Your task to perform on an android device: Set the phone to "Do not disturb". Image 0: 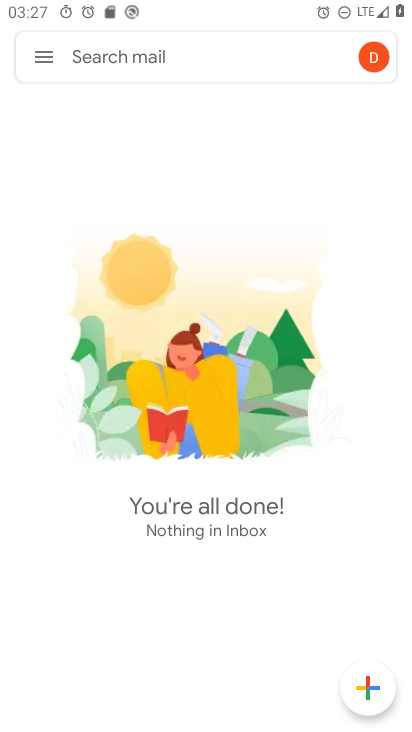
Step 0: press home button
Your task to perform on an android device: Set the phone to "Do not disturb". Image 1: 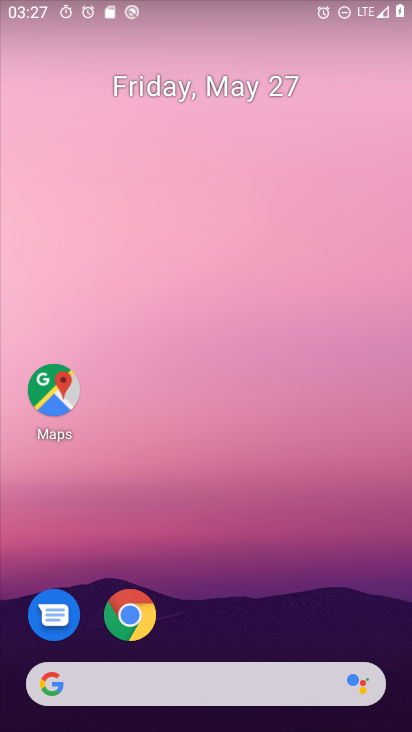
Step 1: drag from (348, 634) to (361, 248)
Your task to perform on an android device: Set the phone to "Do not disturb". Image 2: 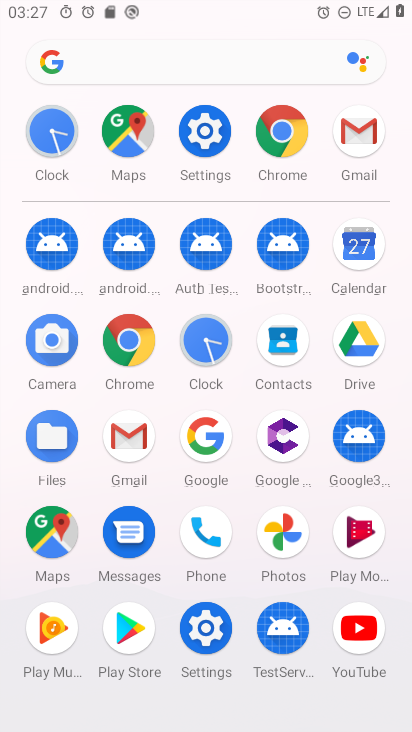
Step 2: click (201, 630)
Your task to perform on an android device: Set the phone to "Do not disturb". Image 3: 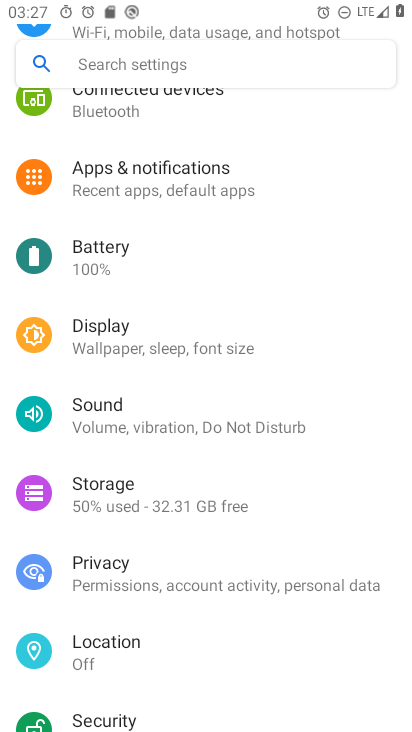
Step 3: drag from (325, 329) to (327, 418)
Your task to perform on an android device: Set the phone to "Do not disturb". Image 4: 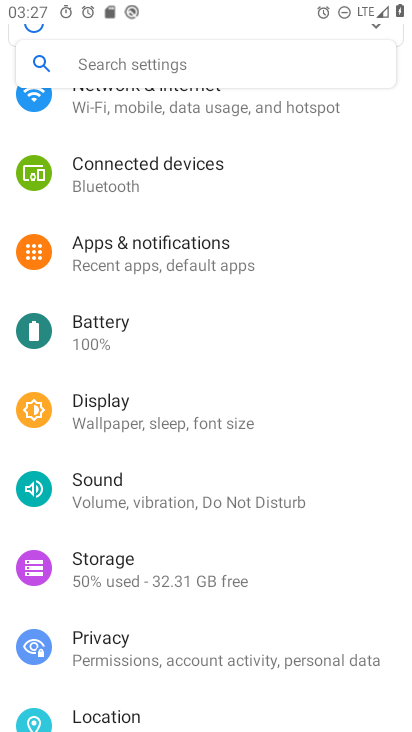
Step 4: drag from (359, 228) to (363, 329)
Your task to perform on an android device: Set the phone to "Do not disturb". Image 5: 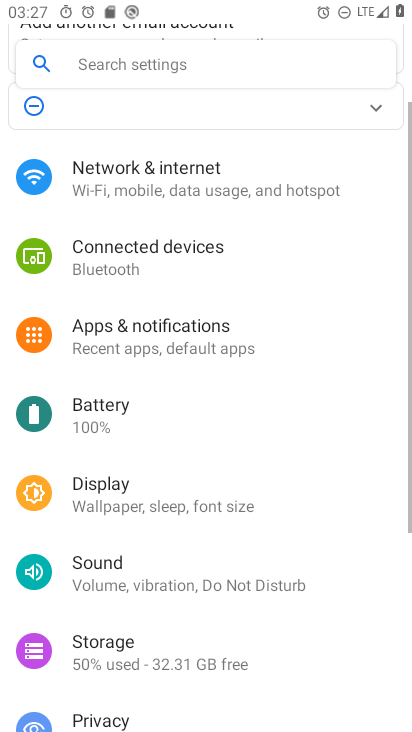
Step 5: drag from (363, 245) to (361, 365)
Your task to perform on an android device: Set the phone to "Do not disturb". Image 6: 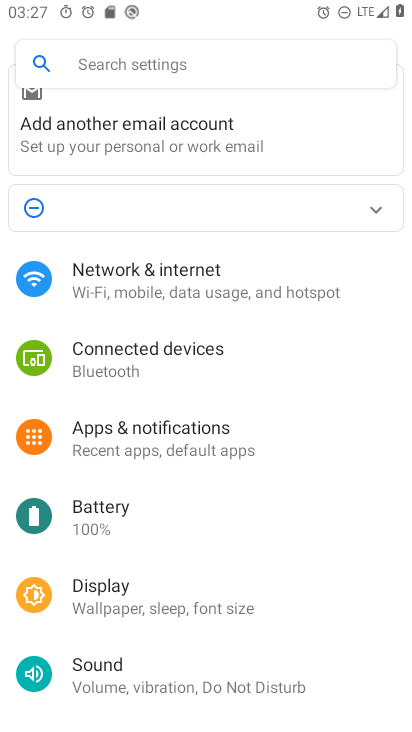
Step 6: drag from (369, 281) to (361, 537)
Your task to perform on an android device: Set the phone to "Do not disturb". Image 7: 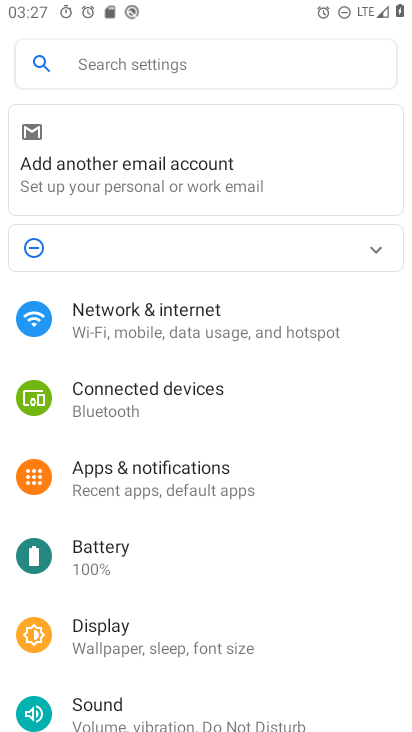
Step 7: drag from (340, 590) to (337, 423)
Your task to perform on an android device: Set the phone to "Do not disturb". Image 8: 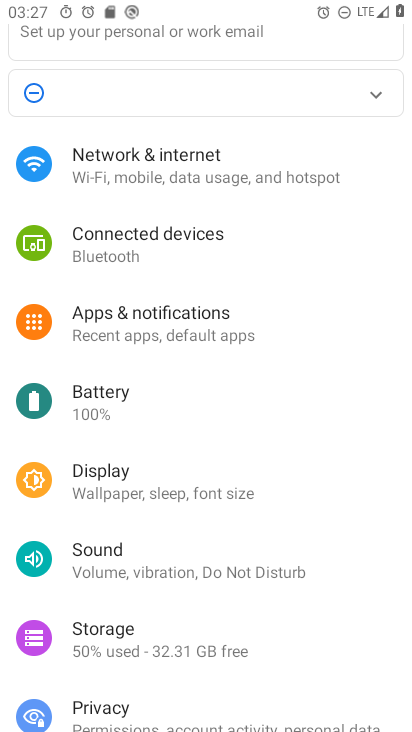
Step 8: drag from (340, 585) to (339, 469)
Your task to perform on an android device: Set the phone to "Do not disturb". Image 9: 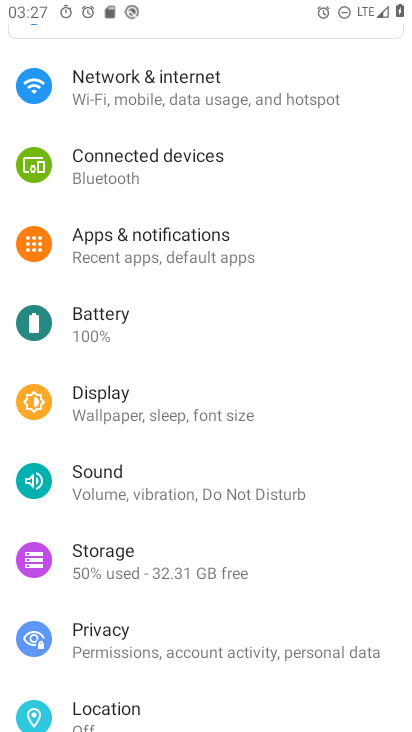
Step 9: drag from (328, 574) to (334, 473)
Your task to perform on an android device: Set the phone to "Do not disturb". Image 10: 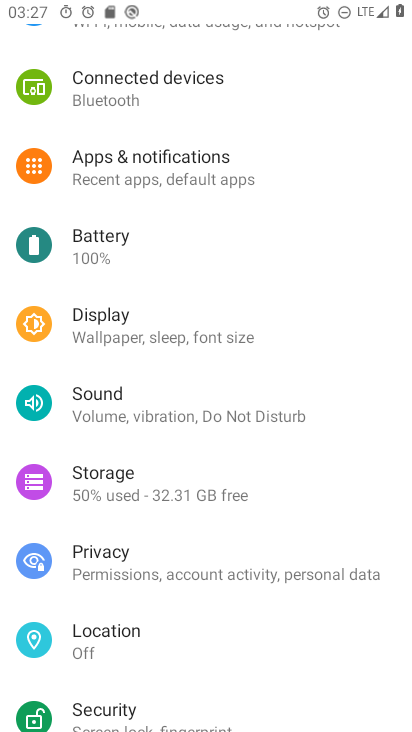
Step 10: drag from (329, 576) to (326, 499)
Your task to perform on an android device: Set the phone to "Do not disturb". Image 11: 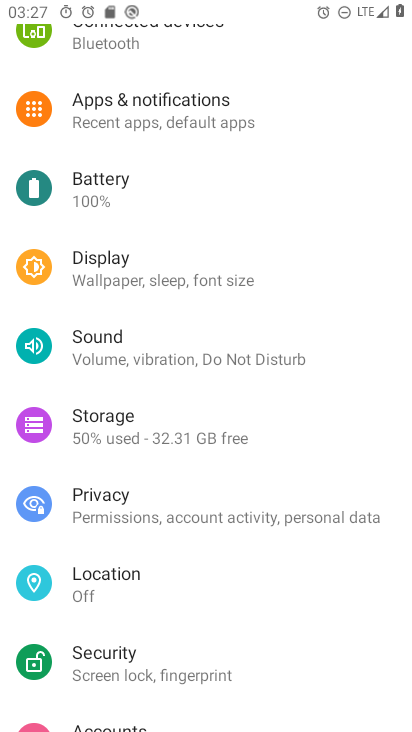
Step 11: drag from (334, 556) to (334, 457)
Your task to perform on an android device: Set the phone to "Do not disturb". Image 12: 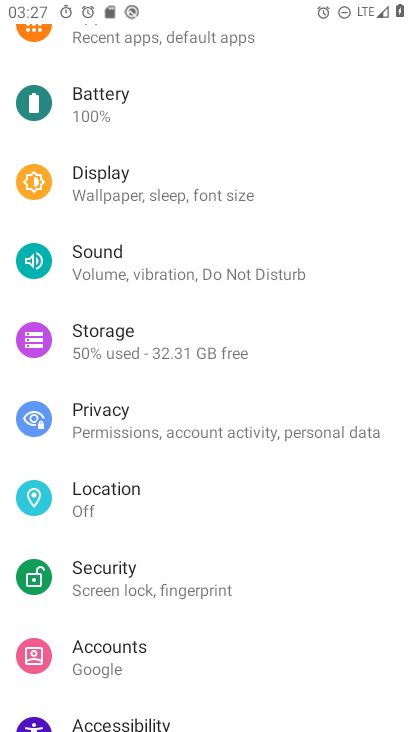
Step 12: drag from (331, 540) to (339, 487)
Your task to perform on an android device: Set the phone to "Do not disturb". Image 13: 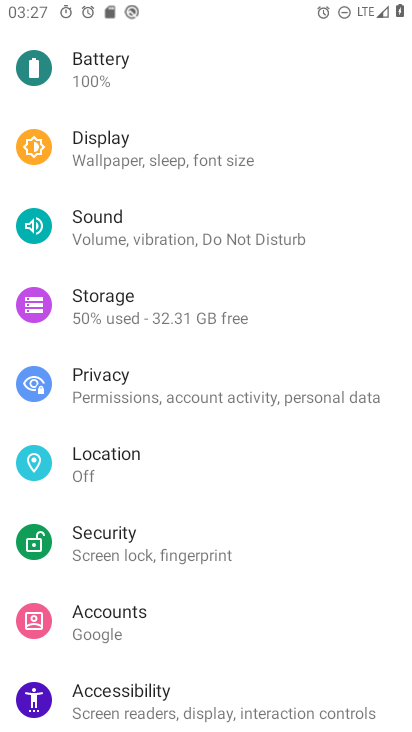
Step 13: click (299, 223)
Your task to perform on an android device: Set the phone to "Do not disturb". Image 14: 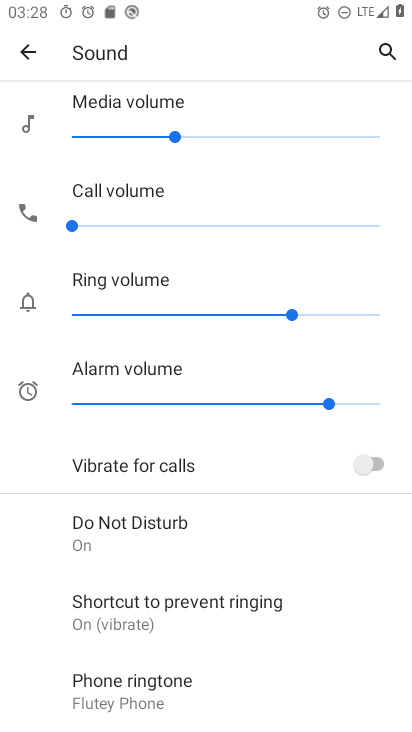
Step 14: task complete